Your task to perform on an android device: open a bookmark in the chrome app Image 0: 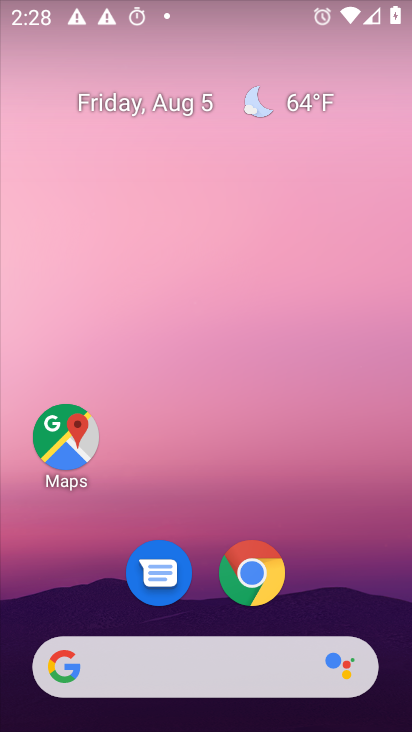
Step 0: press home button
Your task to perform on an android device: open a bookmark in the chrome app Image 1: 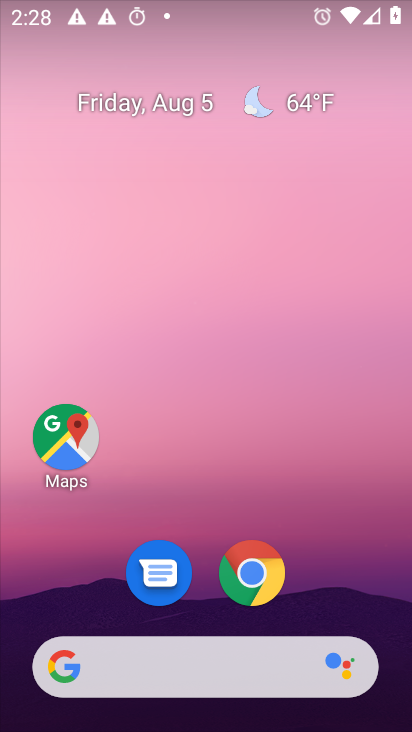
Step 1: drag from (356, 598) to (358, 222)
Your task to perform on an android device: open a bookmark in the chrome app Image 2: 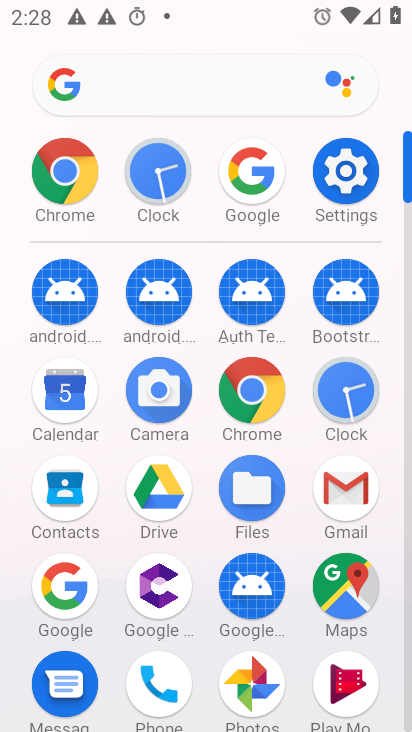
Step 2: click (250, 380)
Your task to perform on an android device: open a bookmark in the chrome app Image 3: 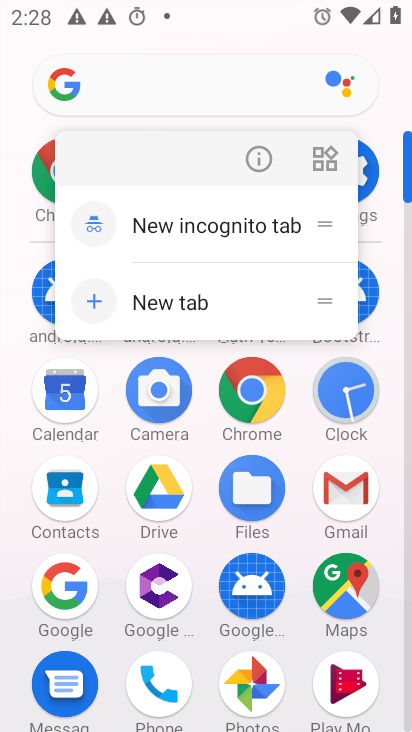
Step 3: click (256, 385)
Your task to perform on an android device: open a bookmark in the chrome app Image 4: 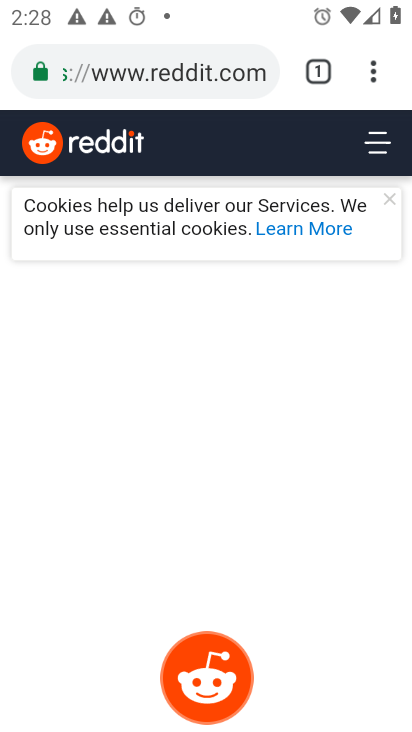
Step 4: click (376, 74)
Your task to perform on an android device: open a bookmark in the chrome app Image 5: 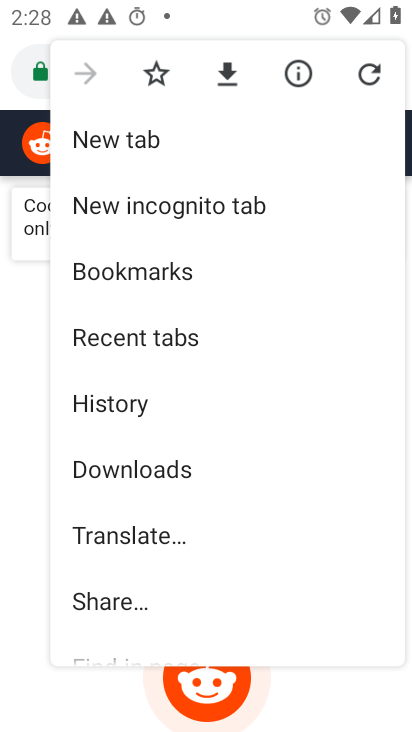
Step 5: click (197, 278)
Your task to perform on an android device: open a bookmark in the chrome app Image 6: 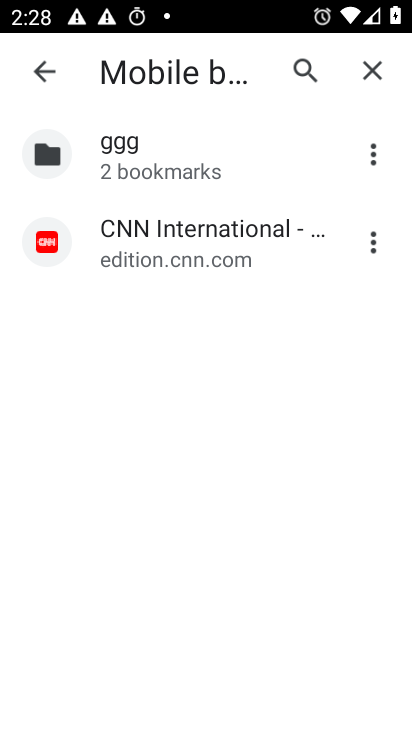
Step 6: click (208, 243)
Your task to perform on an android device: open a bookmark in the chrome app Image 7: 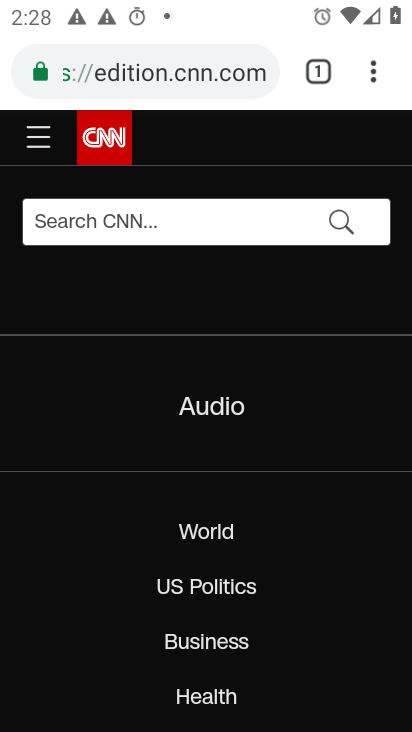
Step 7: task complete